Your task to perform on an android device: show emergency info Image 0: 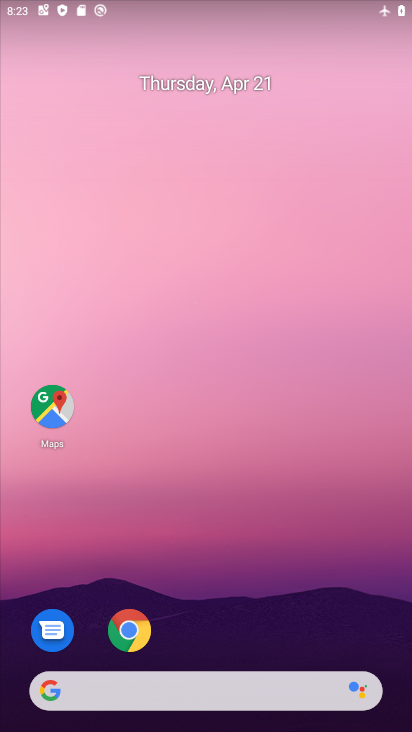
Step 0: drag from (204, 585) to (287, 27)
Your task to perform on an android device: show emergency info Image 1: 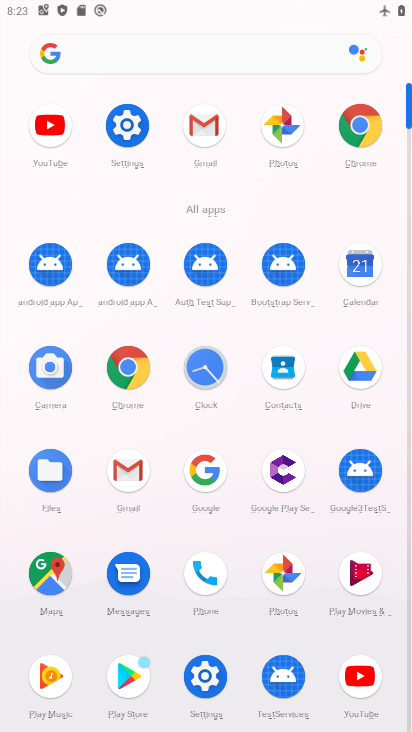
Step 1: click (136, 139)
Your task to perform on an android device: show emergency info Image 2: 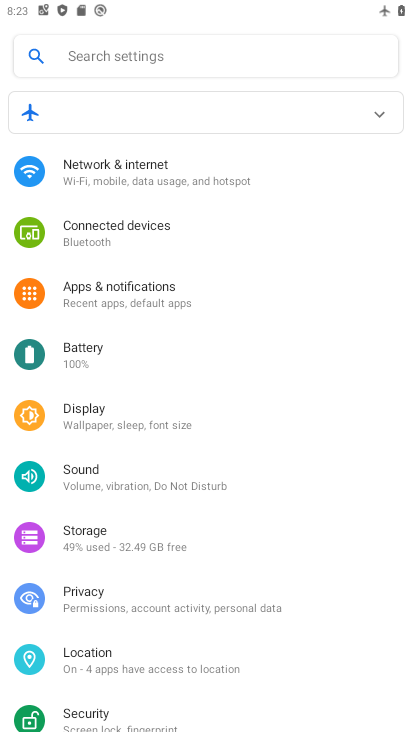
Step 2: drag from (153, 588) to (237, 61)
Your task to perform on an android device: show emergency info Image 3: 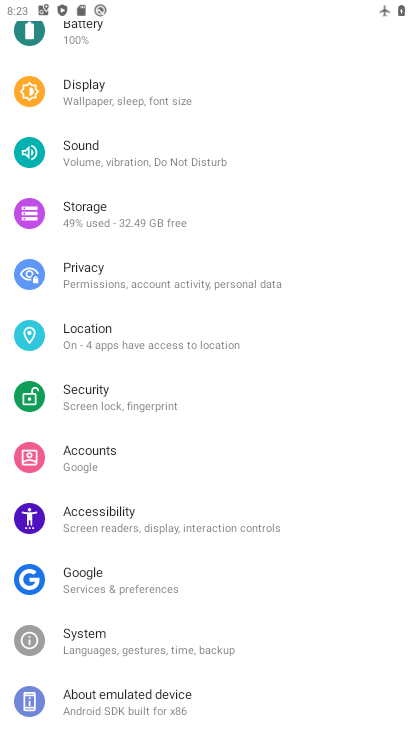
Step 3: drag from (109, 558) to (178, 191)
Your task to perform on an android device: show emergency info Image 4: 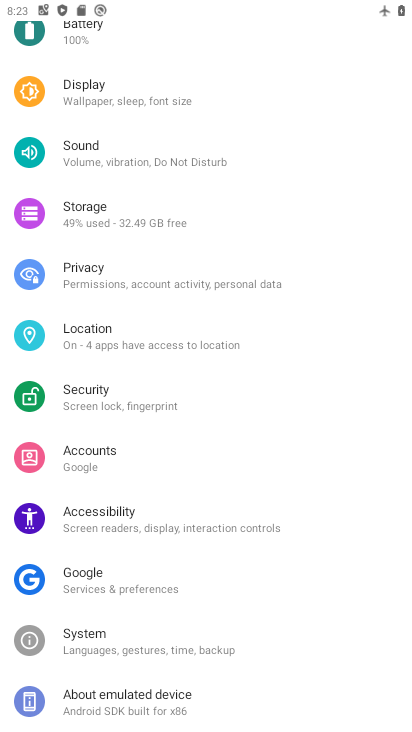
Step 4: click (131, 698)
Your task to perform on an android device: show emergency info Image 5: 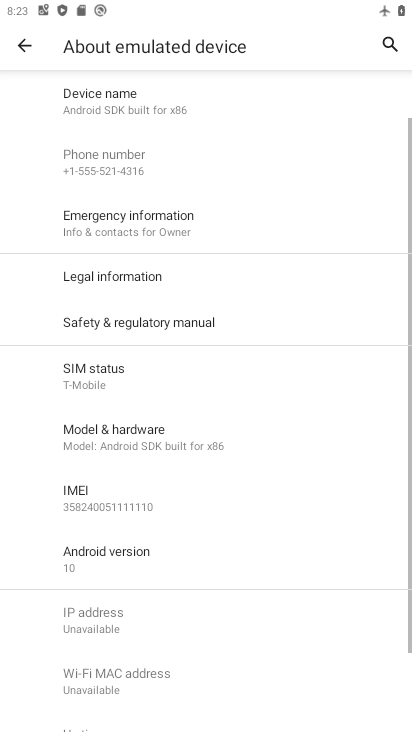
Step 5: click (107, 227)
Your task to perform on an android device: show emergency info Image 6: 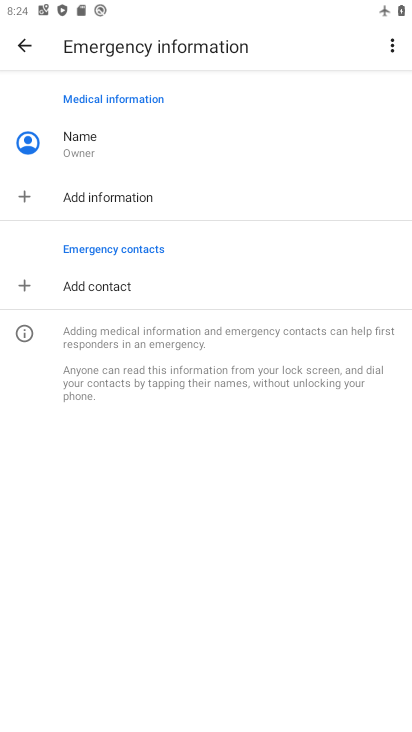
Step 6: task complete